Your task to perform on an android device: check google app version Image 0: 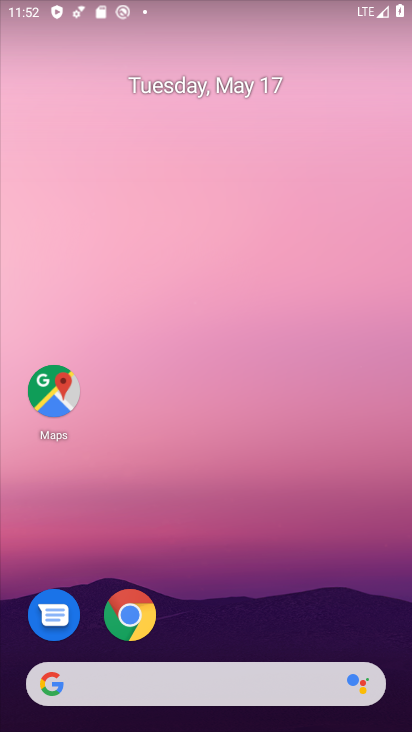
Step 0: drag from (264, 688) to (265, 227)
Your task to perform on an android device: check google app version Image 1: 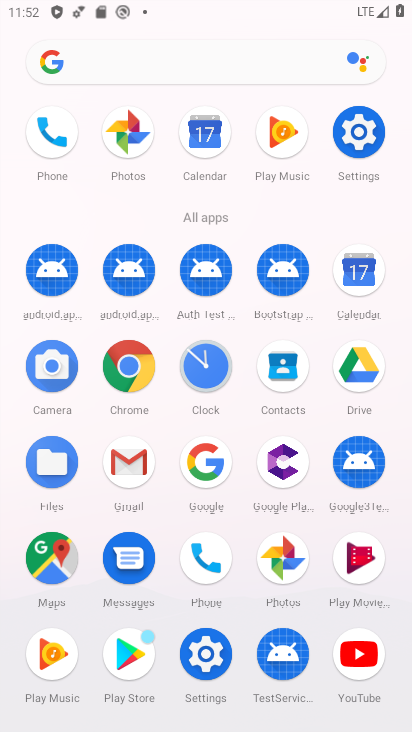
Step 1: click (131, 380)
Your task to perform on an android device: check google app version Image 2: 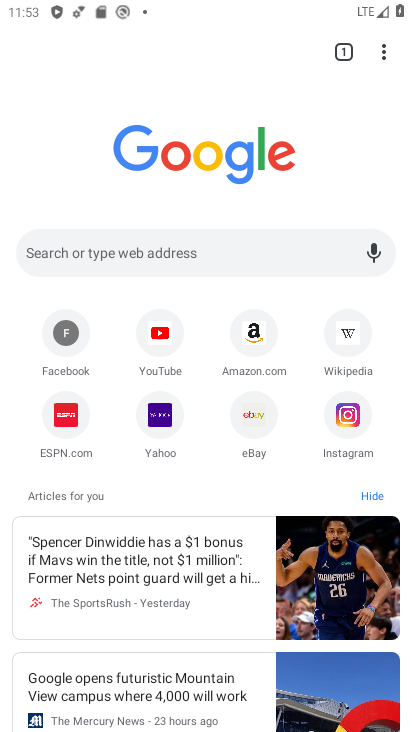
Step 2: click (372, 55)
Your task to perform on an android device: check google app version Image 3: 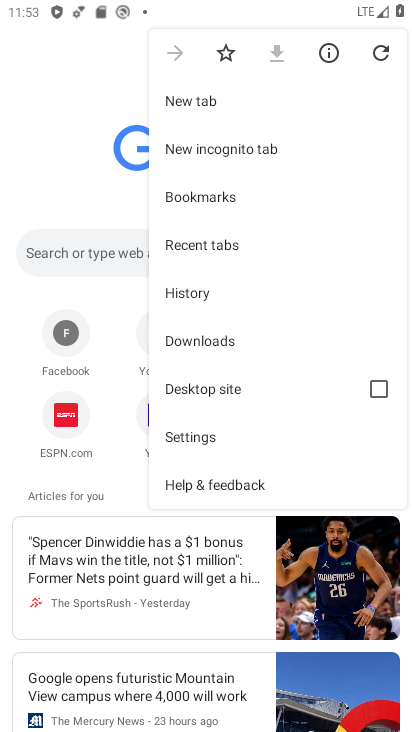
Step 3: click (184, 442)
Your task to perform on an android device: check google app version Image 4: 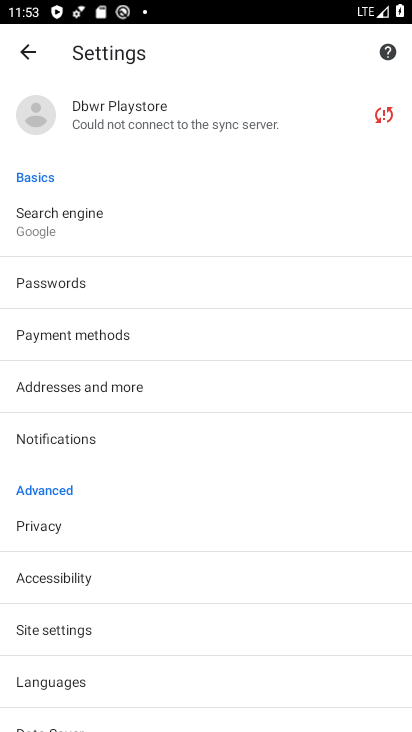
Step 4: drag from (140, 585) to (178, 416)
Your task to perform on an android device: check google app version Image 5: 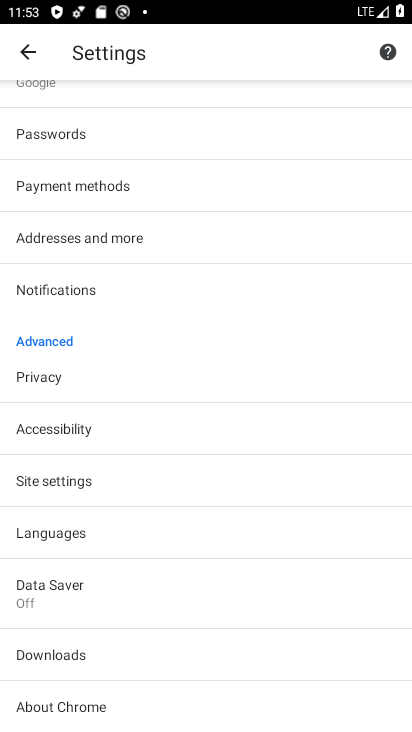
Step 5: click (43, 700)
Your task to perform on an android device: check google app version Image 6: 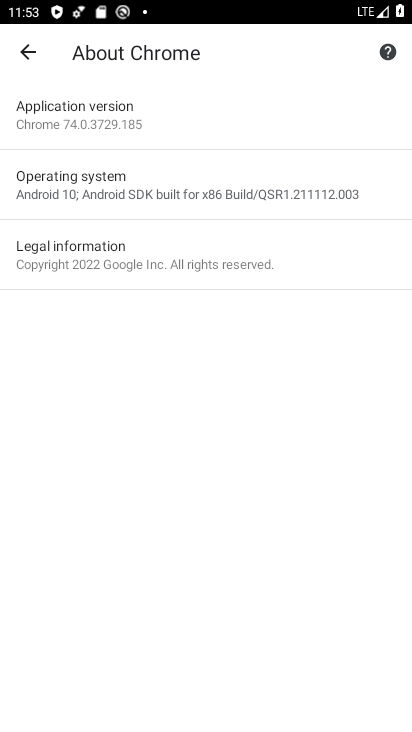
Step 6: click (51, 127)
Your task to perform on an android device: check google app version Image 7: 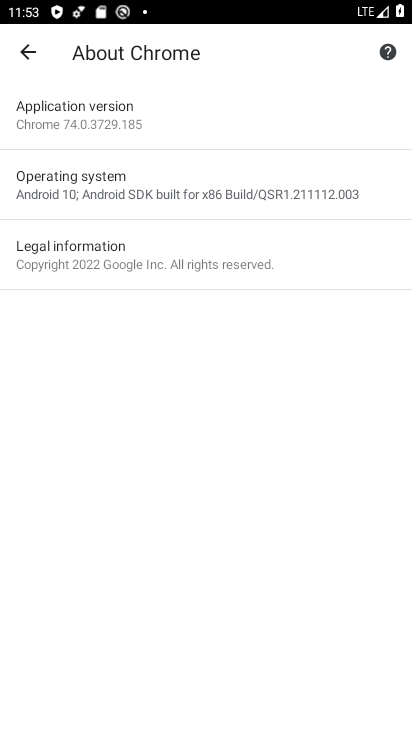
Step 7: task complete